Your task to perform on an android device: Open ESPN.com Image 0: 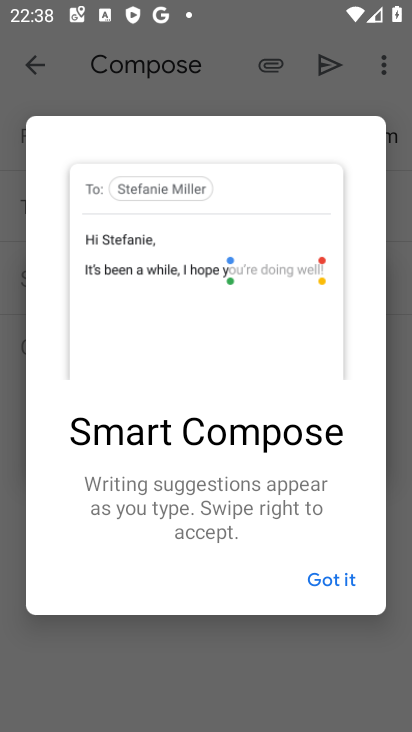
Step 0: press home button
Your task to perform on an android device: Open ESPN.com Image 1: 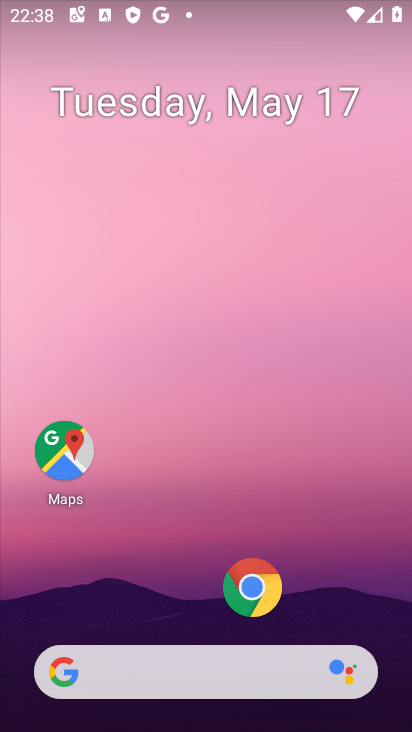
Step 1: drag from (146, 612) to (168, 154)
Your task to perform on an android device: Open ESPN.com Image 2: 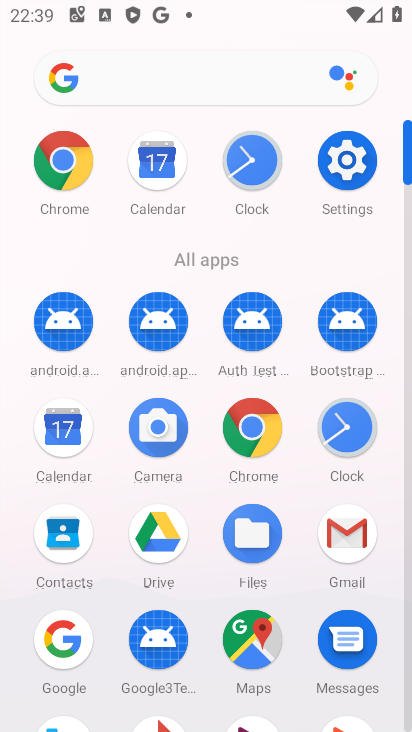
Step 2: click (260, 435)
Your task to perform on an android device: Open ESPN.com Image 3: 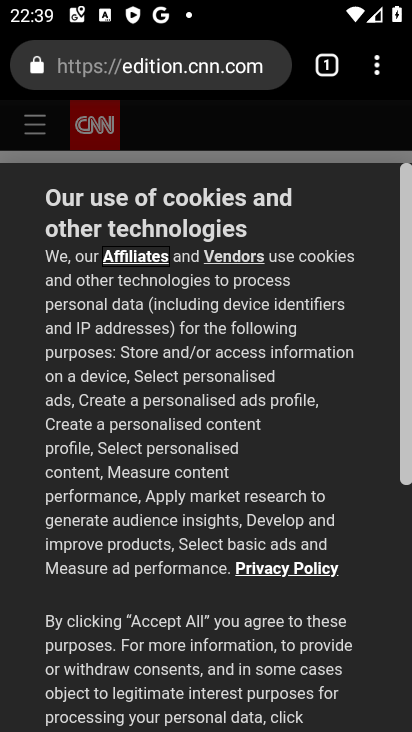
Step 3: click (316, 61)
Your task to perform on an android device: Open ESPN.com Image 4: 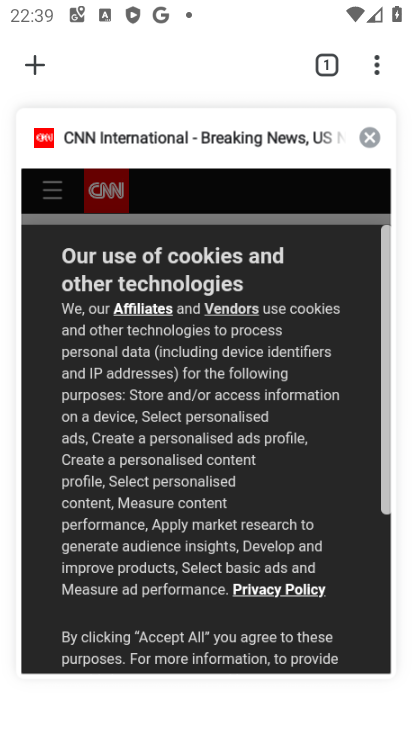
Step 4: click (250, 172)
Your task to perform on an android device: Open ESPN.com Image 5: 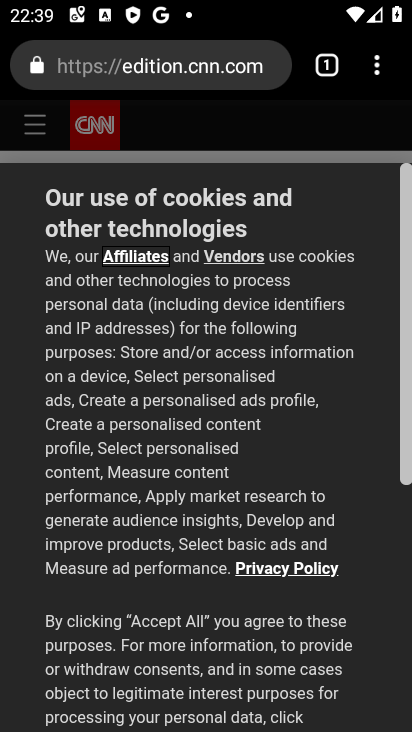
Step 5: click (247, 267)
Your task to perform on an android device: Open ESPN.com Image 6: 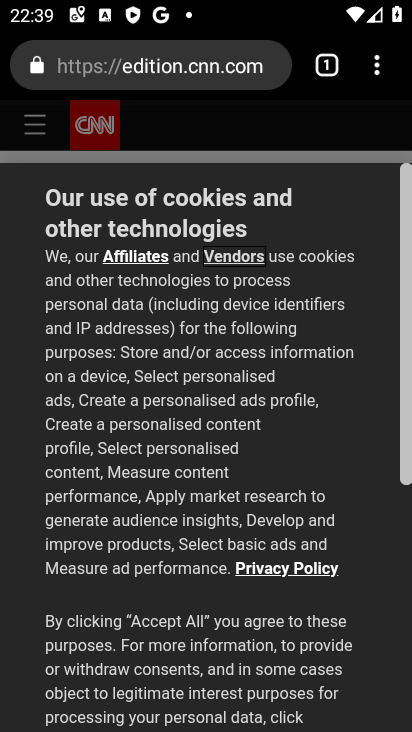
Step 6: drag from (294, 491) to (275, 80)
Your task to perform on an android device: Open ESPN.com Image 7: 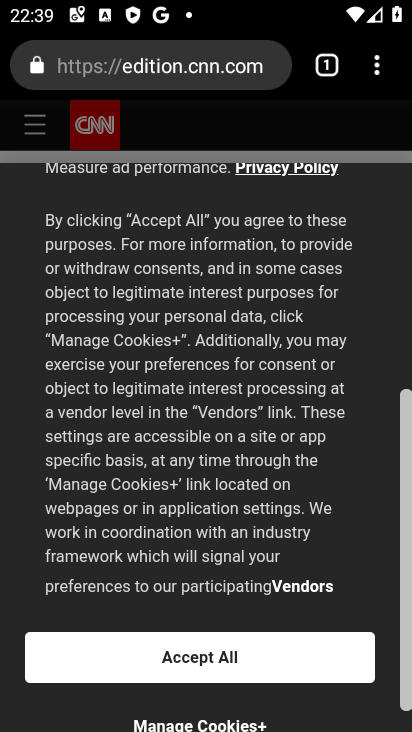
Step 7: drag from (273, 477) to (241, 195)
Your task to perform on an android device: Open ESPN.com Image 8: 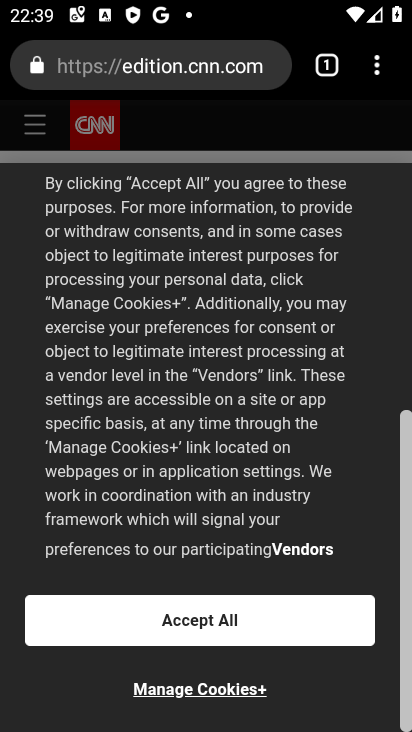
Step 8: click (188, 653)
Your task to perform on an android device: Open ESPN.com Image 9: 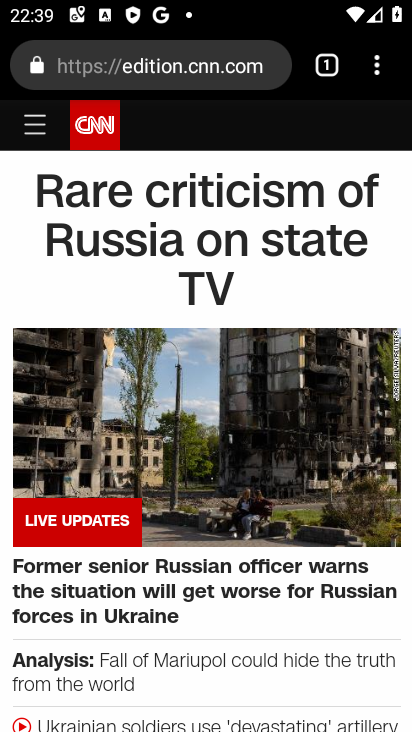
Step 9: task complete